Your task to perform on an android device: Go to internet settings Image 0: 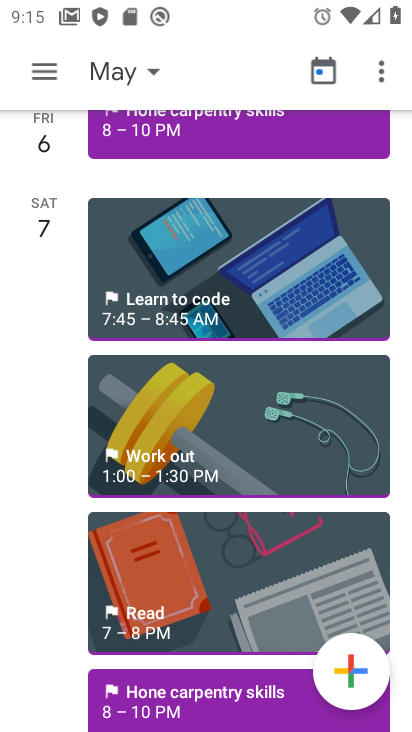
Step 0: press home button
Your task to perform on an android device: Go to internet settings Image 1: 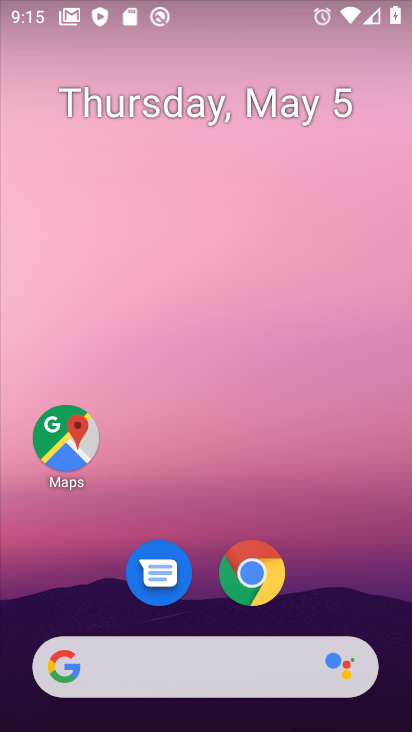
Step 1: drag from (211, 602) to (292, 111)
Your task to perform on an android device: Go to internet settings Image 2: 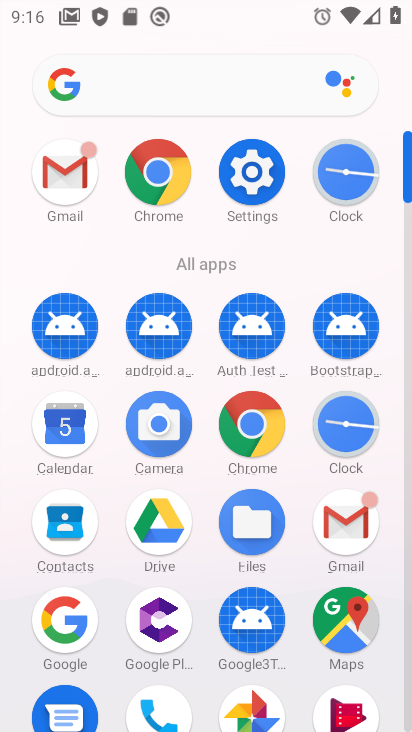
Step 2: click (257, 182)
Your task to perform on an android device: Go to internet settings Image 3: 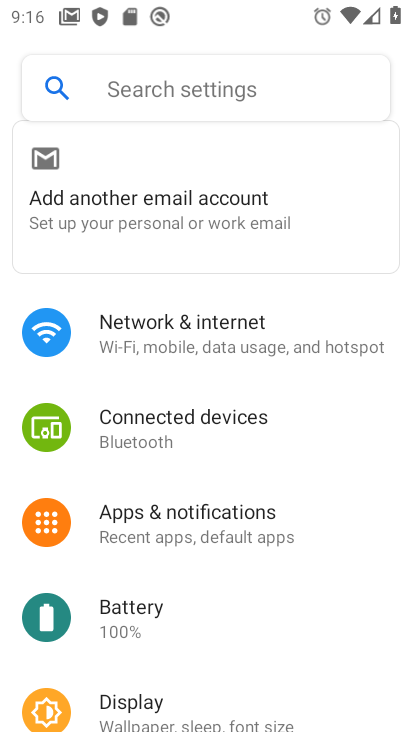
Step 3: click (175, 326)
Your task to perform on an android device: Go to internet settings Image 4: 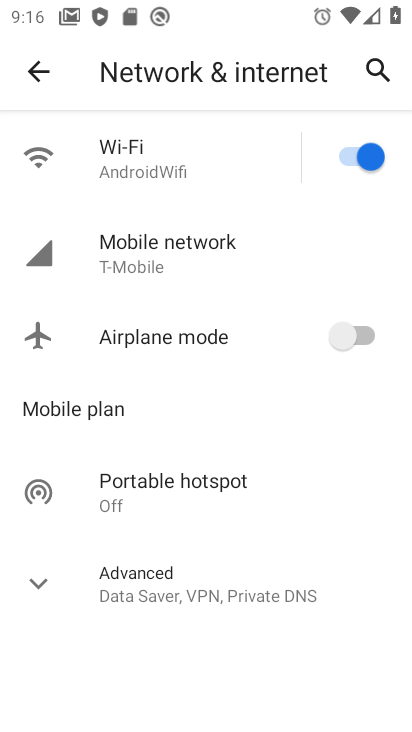
Step 4: task complete